Your task to perform on an android device: Add lenovo thinkpad to the cart on amazon.com, then select checkout. Image 0: 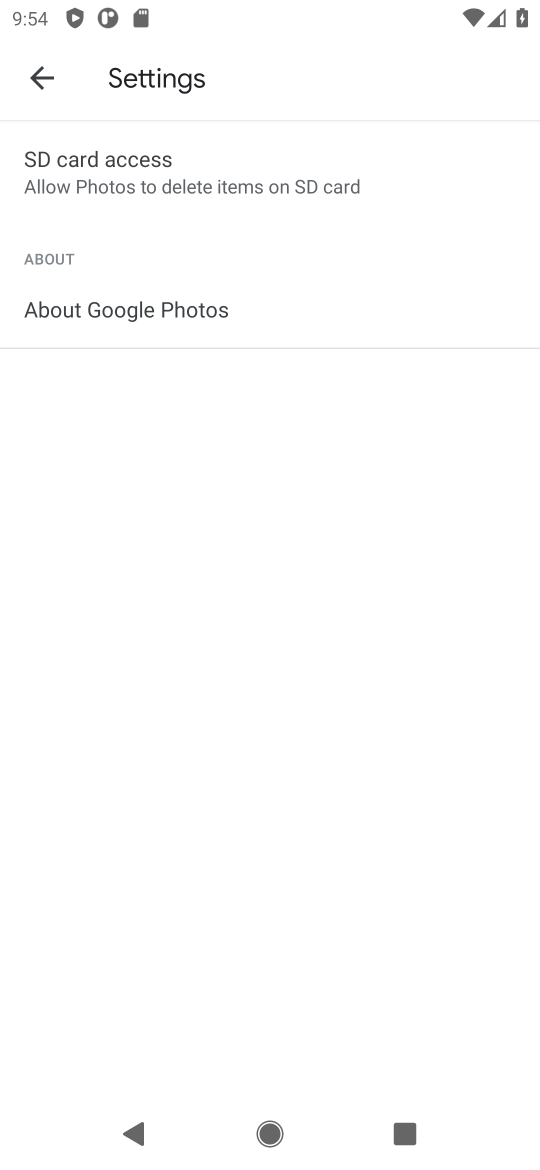
Step 0: press home button
Your task to perform on an android device: Add lenovo thinkpad to the cart on amazon.com, then select checkout. Image 1: 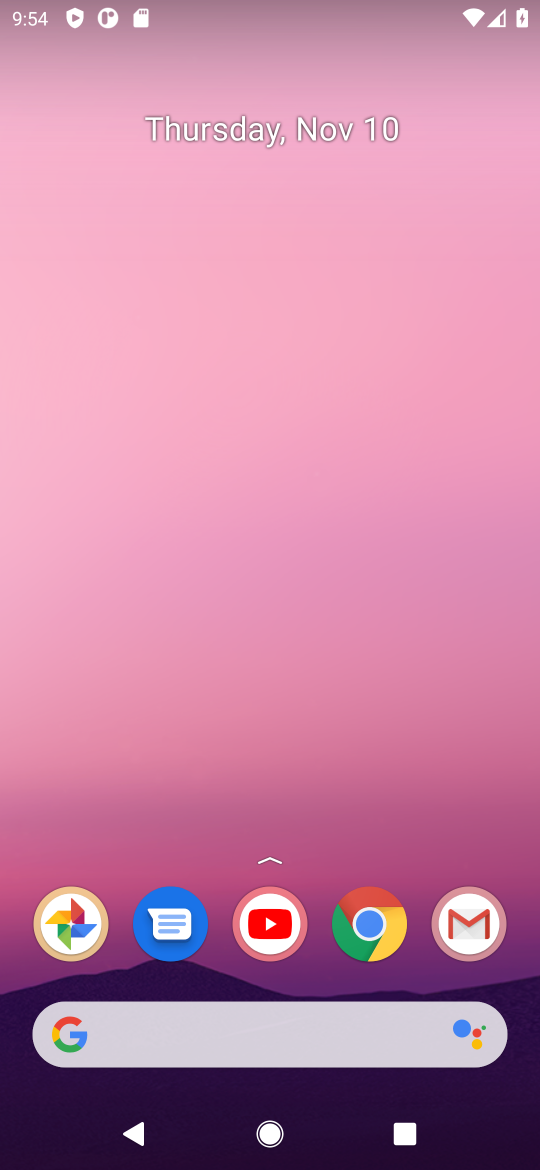
Step 1: click (359, 934)
Your task to perform on an android device: Add lenovo thinkpad to the cart on amazon.com, then select checkout. Image 2: 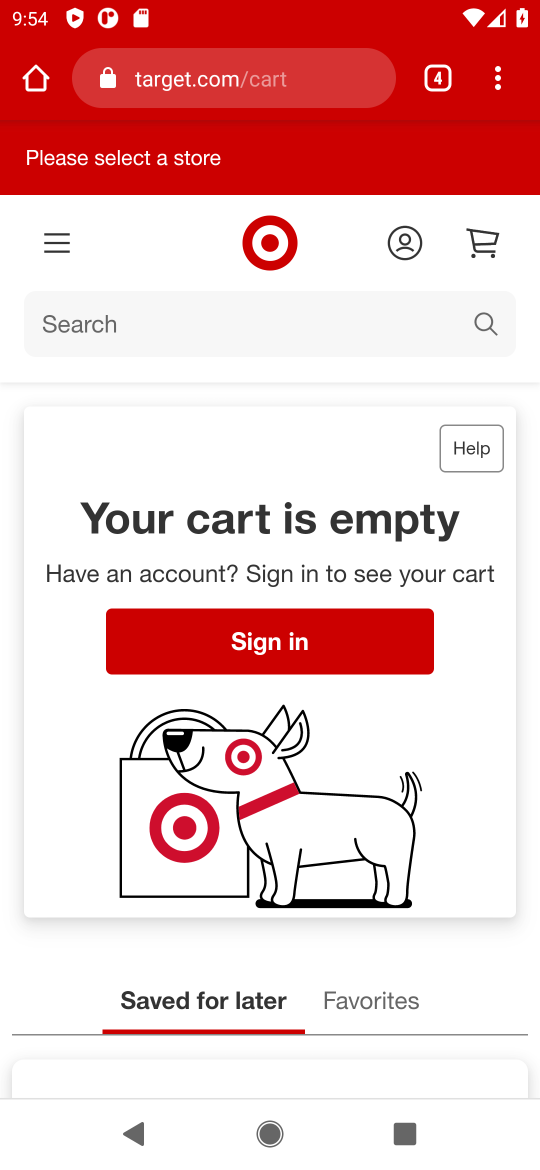
Step 2: click (211, 83)
Your task to perform on an android device: Add lenovo thinkpad to the cart on amazon.com, then select checkout. Image 3: 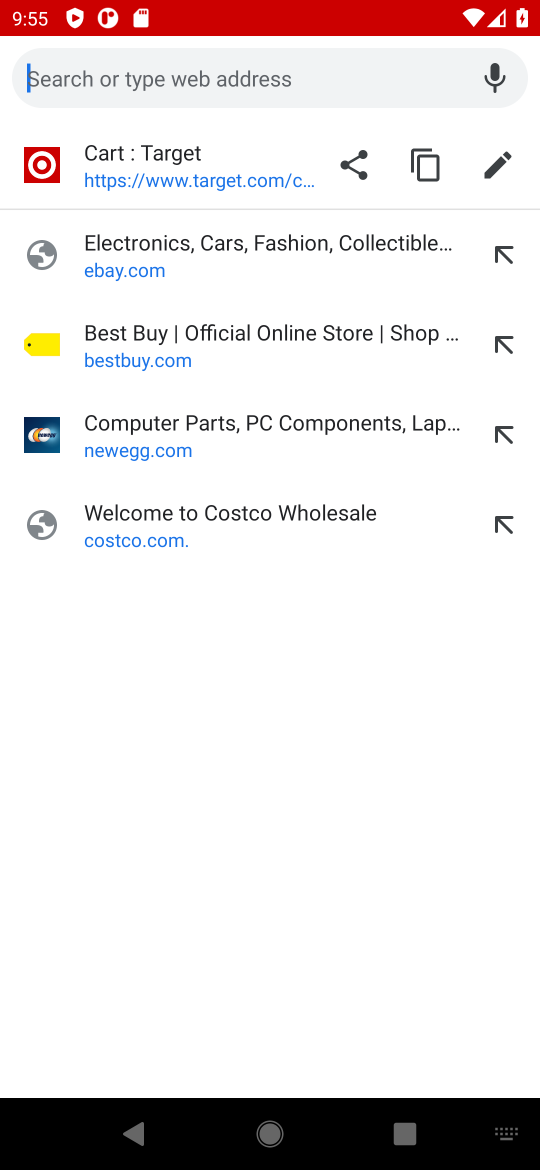
Step 3: type "amazon.com"
Your task to perform on an android device: Add lenovo thinkpad to the cart on amazon.com, then select checkout. Image 4: 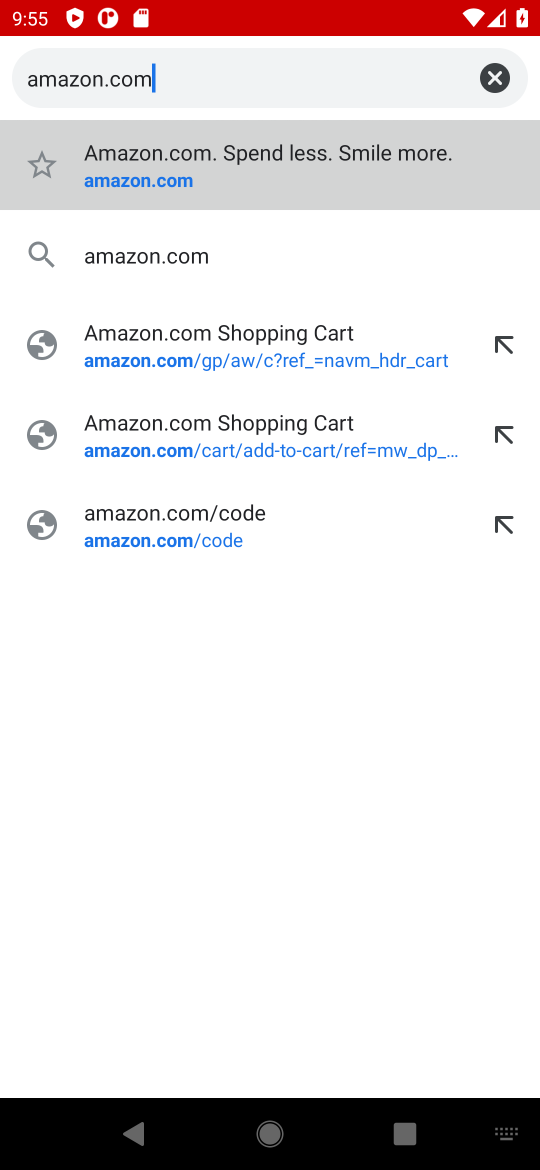
Step 4: click (121, 188)
Your task to perform on an android device: Add lenovo thinkpad to the cart on amazon.com, then select checkout. Image 5: 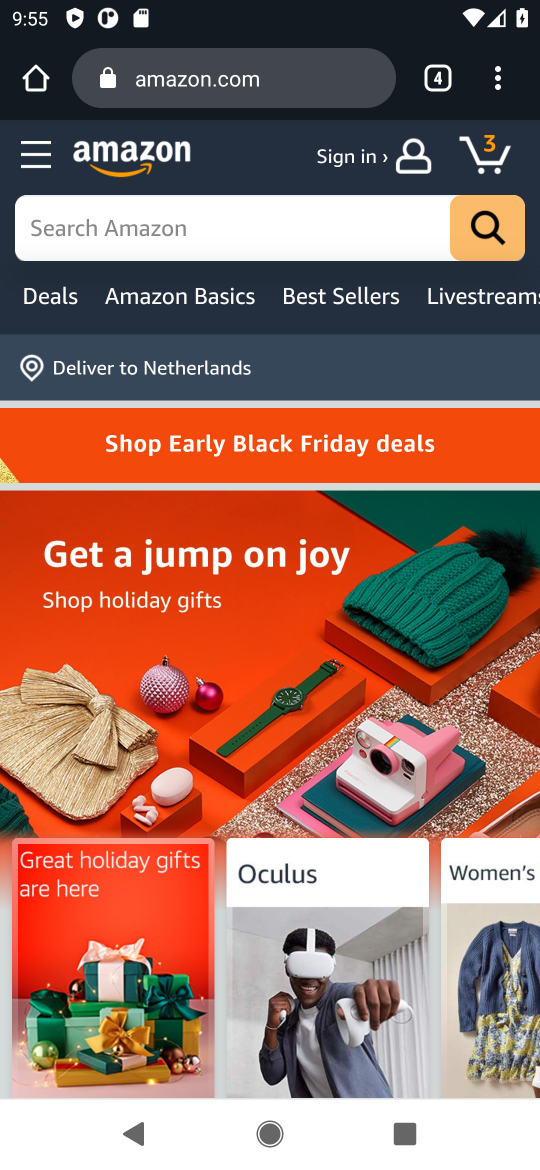
Step 5: click (184, 238)
Your task to perform on an android device: Add lenovo thinkpad to the cart on amazon.com, then select checkout. Image 6: 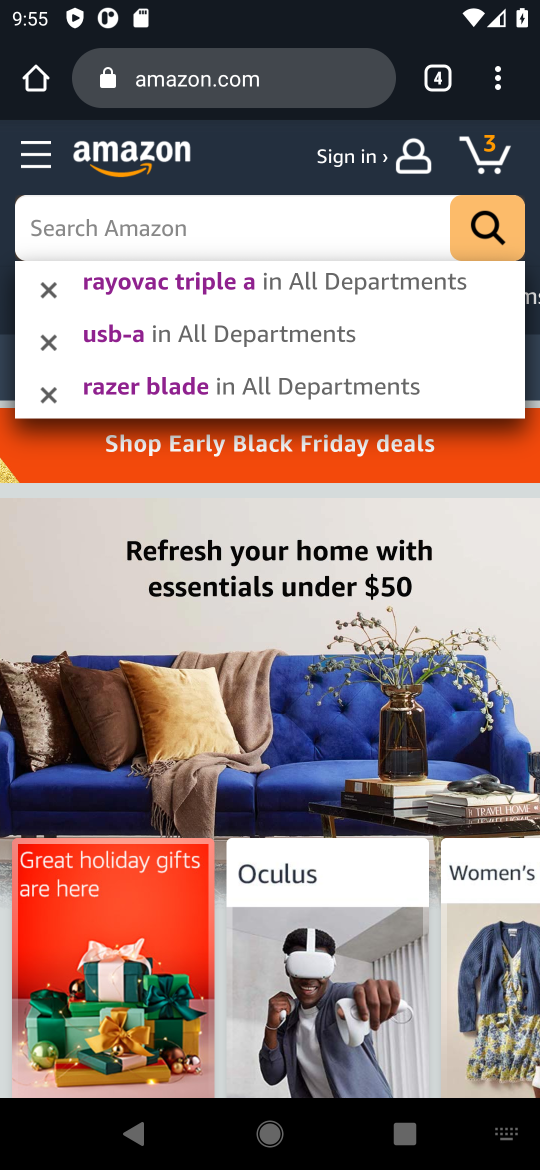
Step 6: type " lenovo thinkpad"
Your task to perform on an android device: Add lenovo thinkpad to the cart on amazon.com, then select checkout. Image 7: 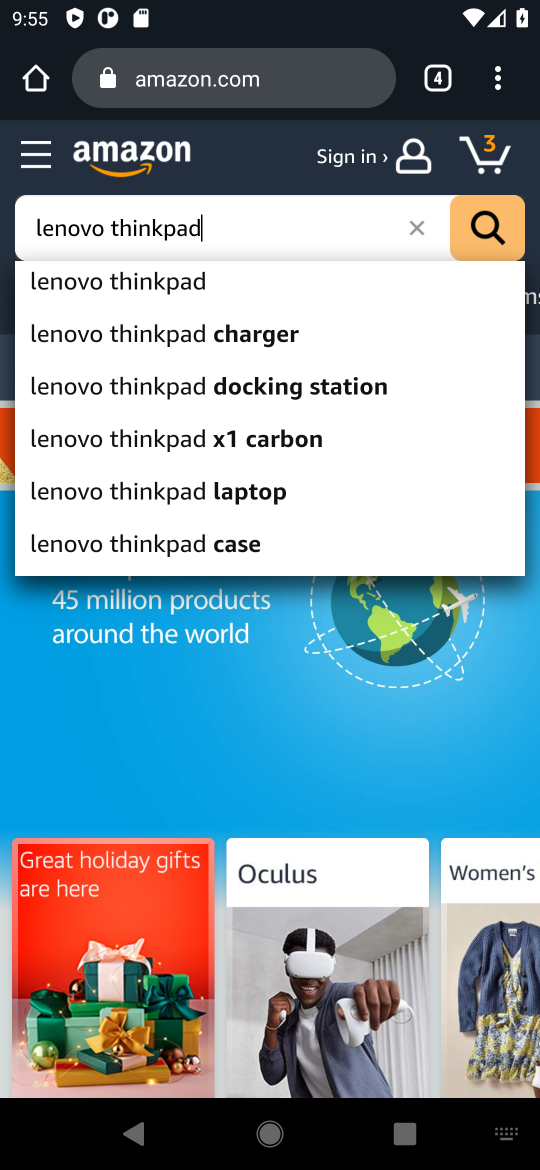
Step 7: click (134, 280)
Your task to perform on an android device: Add lenovo thinkpad to the cart on amazon.com, then select checkout. Image 8: 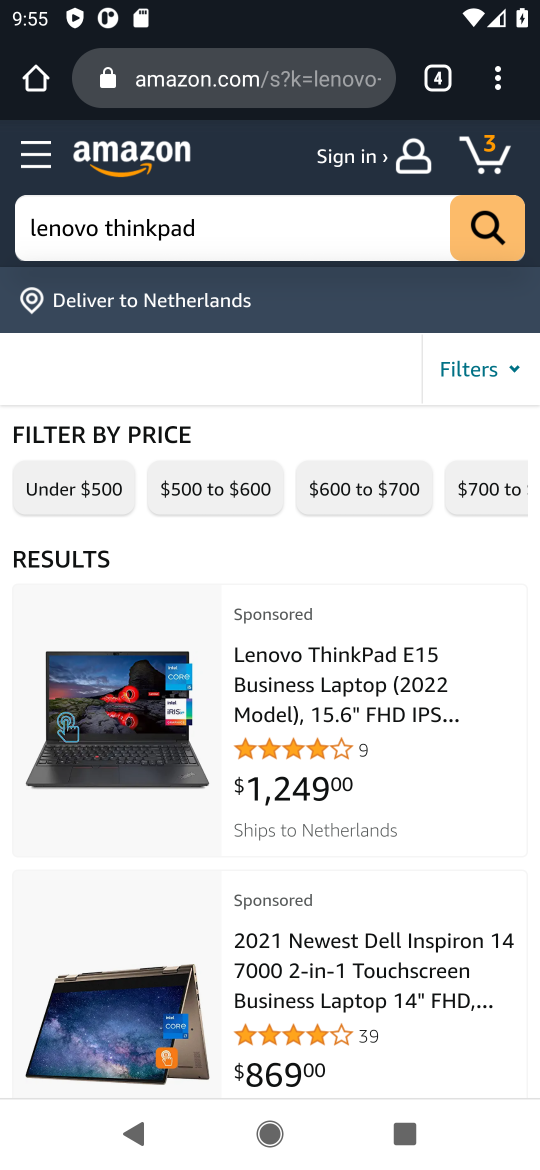
Step 8: click (140, 715)
Your task to perform on an android device: Add lenovo thinkpad to the cart on amazon.com, then select checkout. Image 9: 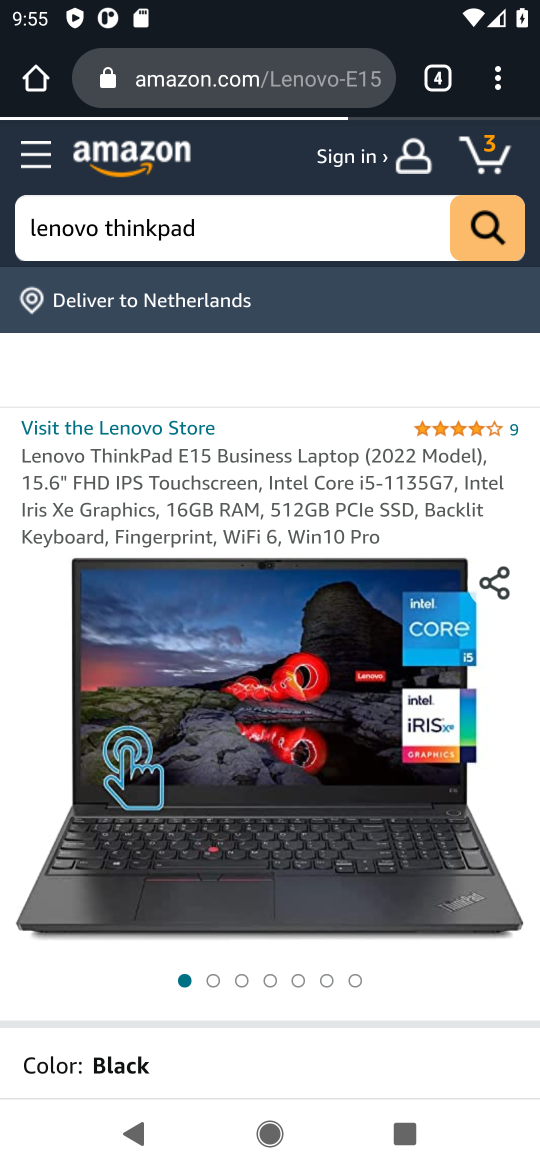
Step 9: drag from (198, 766) to (157, 333)
Your task to perform on an android device: Add lenovo thinkpad to the cart on amazon.com, then select checkout. Image 10: 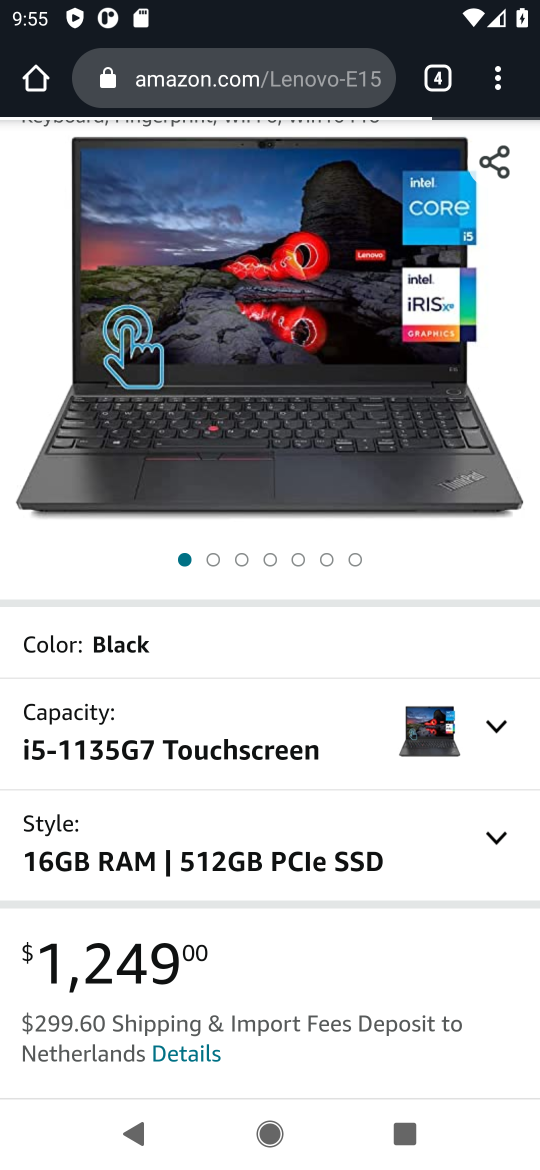
Step 10: drag from (218, 856) to (222, 309)
Your task to perform on an android device: Add lenovo thinkpad to the cart on amazon.com, then select checkout. Image 11: 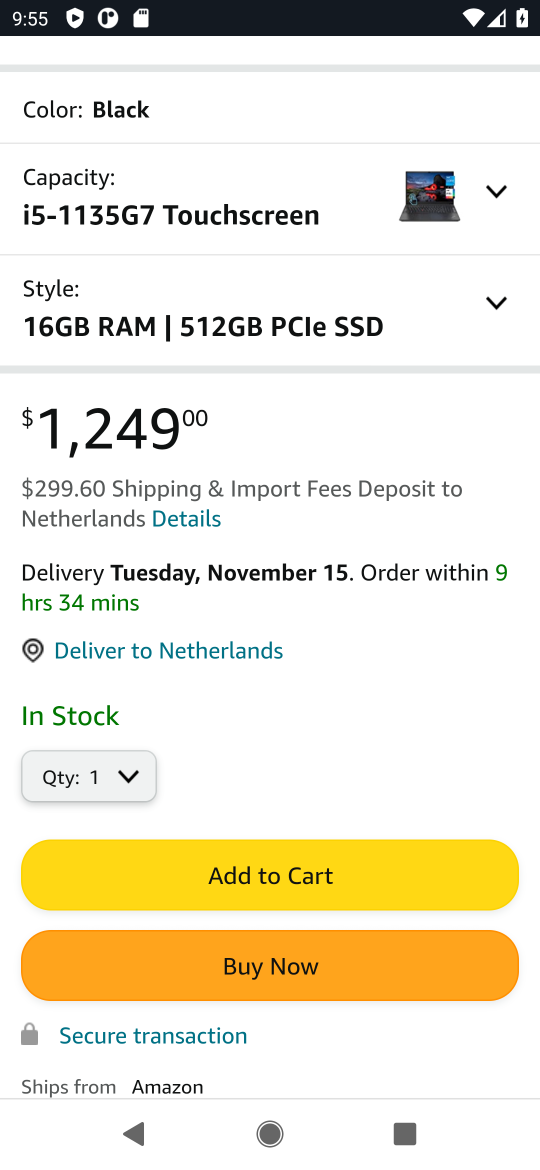
Step 11: drag from (190, 817) to (194, 606)
Your task to perform on an android device: Add lenovo thinkpad to the cart on amazon.com, then select checkout. Image 12: 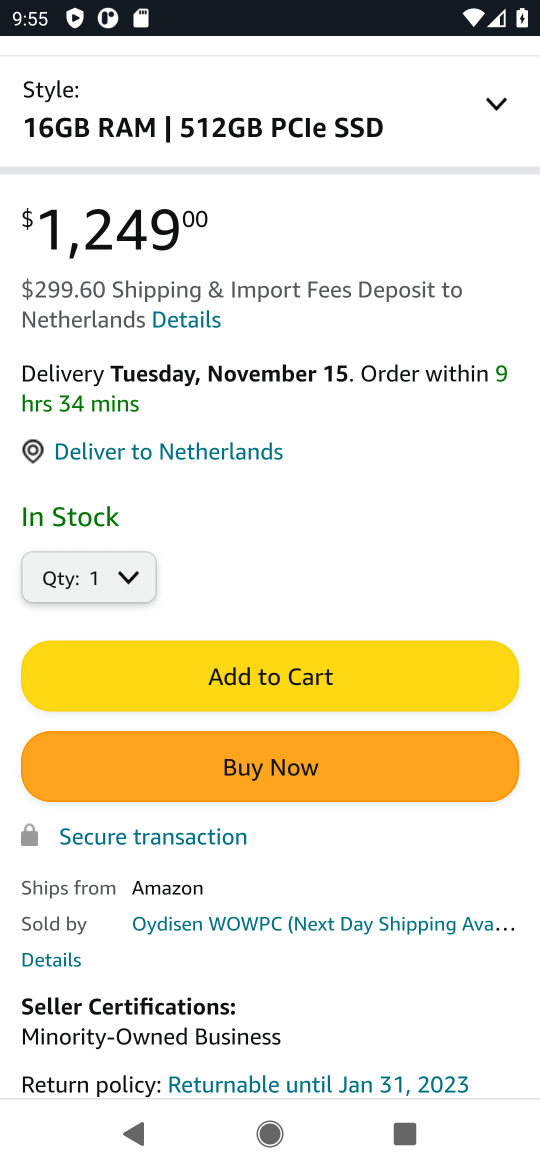
Step 12: click (234, 685)
Your task to perform on an android device: Add lenovo thinkpad to the cart on amazon.com, then select checkout. Image 13: 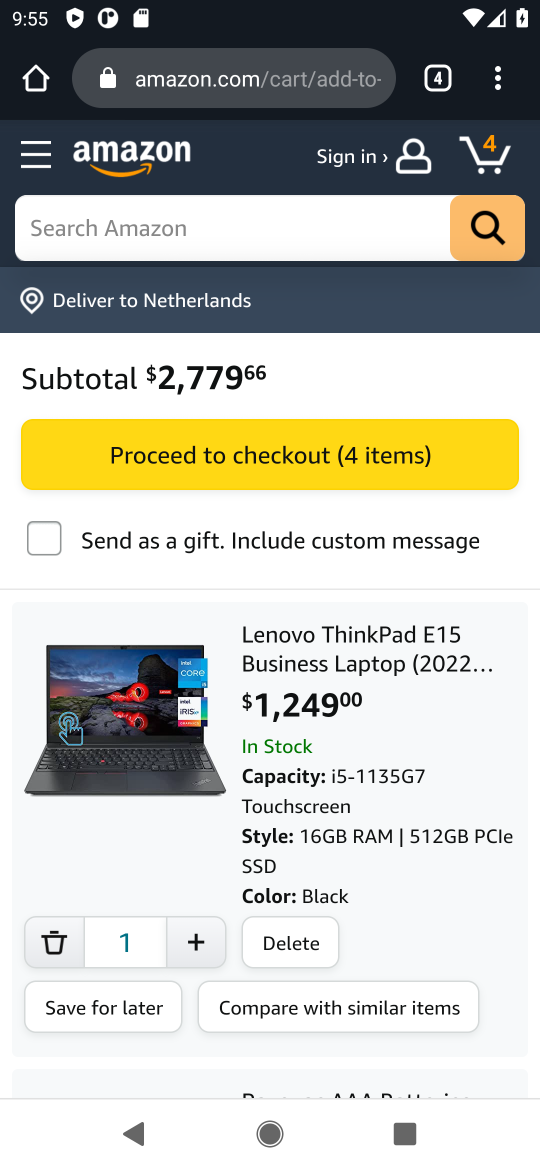
Step 13: click (222, 464)
Your task to perform on an android device: Add lenovo thinkpad to the cart on amazon.com, then select checkout. Image 14: 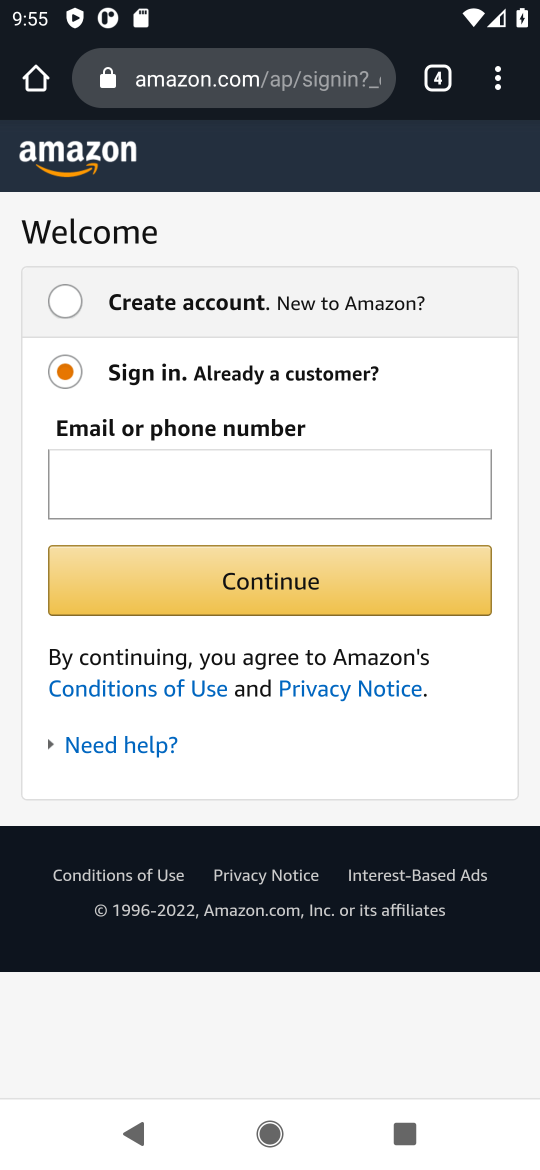
Step 14: task complete